Your task to perform on an android device: What's on my calendar tomorrow? Image 0: 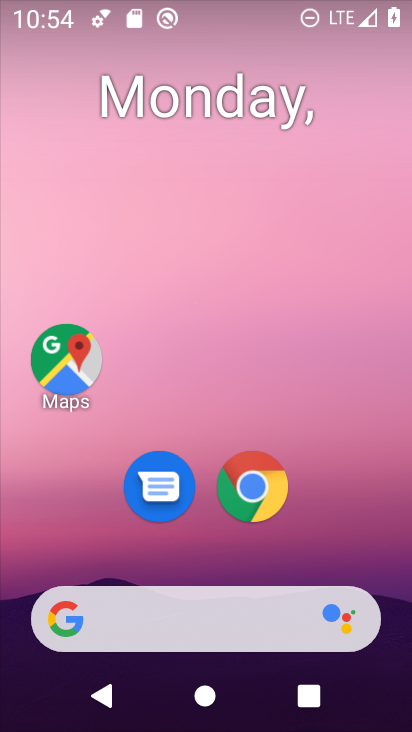
Step 0: drag from (16, 662) to (256, 187)
Your task to perform on an android device: What's on my calendar tomorrow? Image 1: 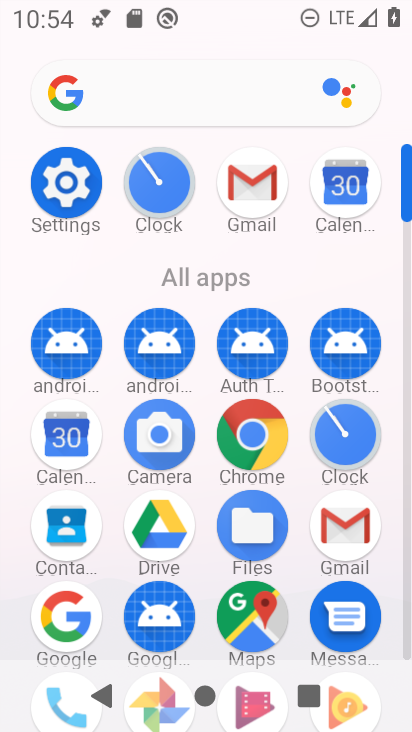
Step 1: click (77, 453)
Your task to perform on an android device: What's on my calendar tomorrow? Image 2: 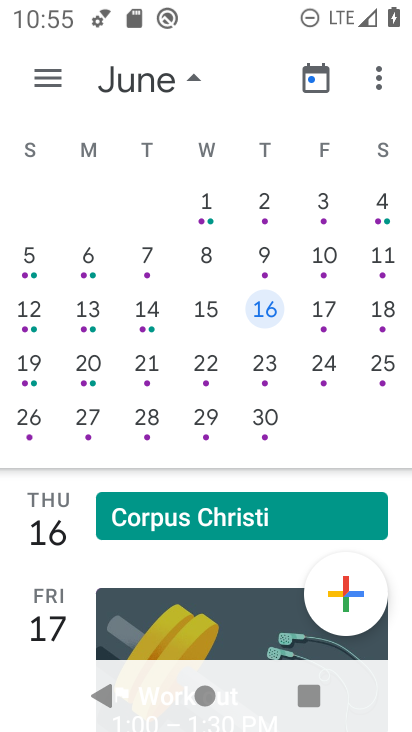
Step 2: drag from (56, 295) to (405, 372)
Your task to perform on an android device: What's on my calendar tomorrow? Image 3: 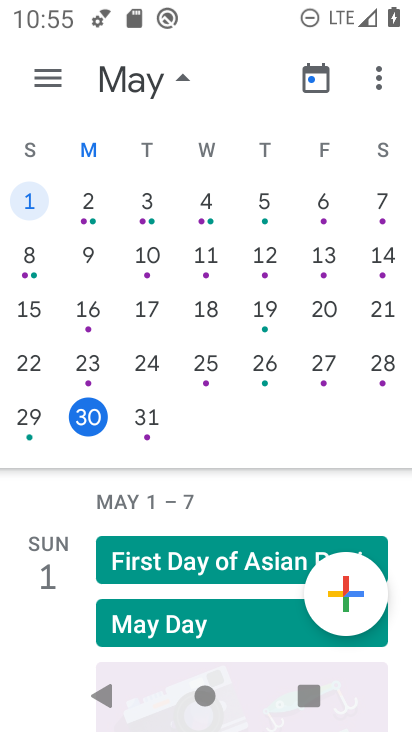
Step 3: click (93, 422)
Your task to perform on an android device: What's on my calendar tomorrow? Image 4: 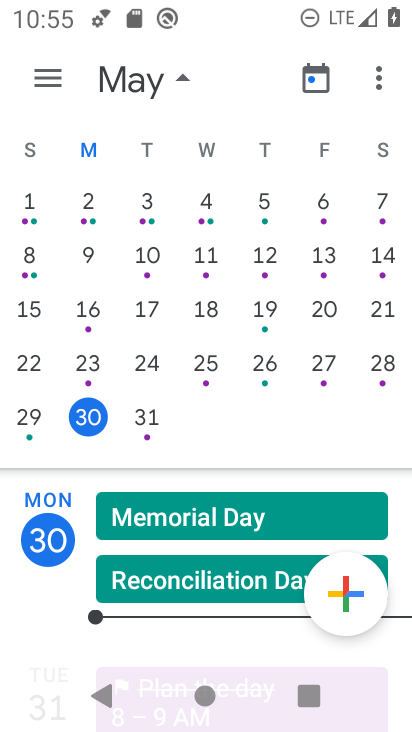
Step 4: task complete